Your task to perform on an android device: Open Maps and search for coffee Image 0: 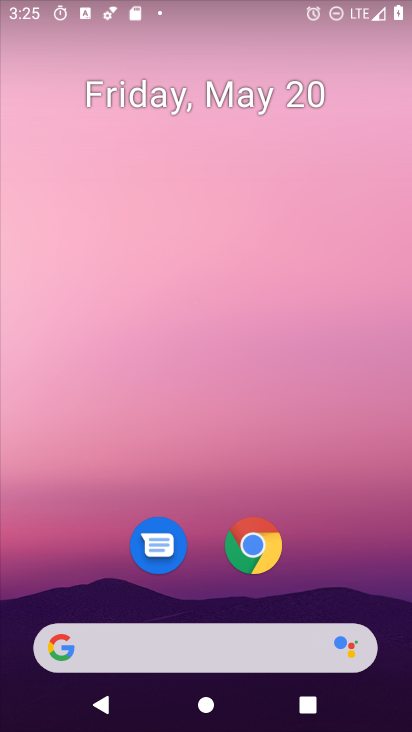
Step 0: drag from (317, 541) to (314, 56)
Your task to perform on an android device: Open Maps and search for coffee Image 1: 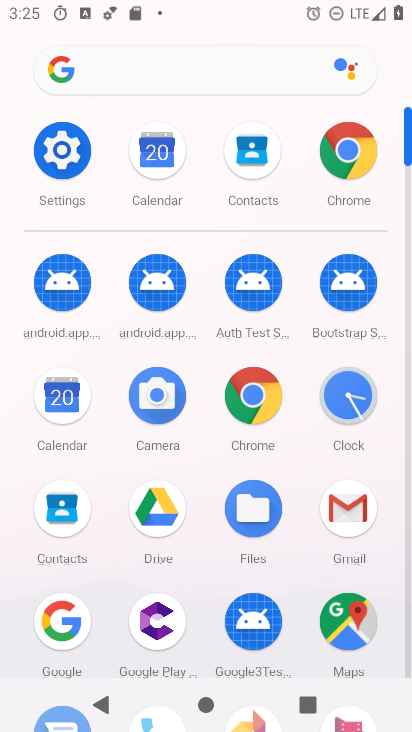
Step 1: click (327, 613)
Your task to perform on an android device: Open Maps and search for coffee Image 2: 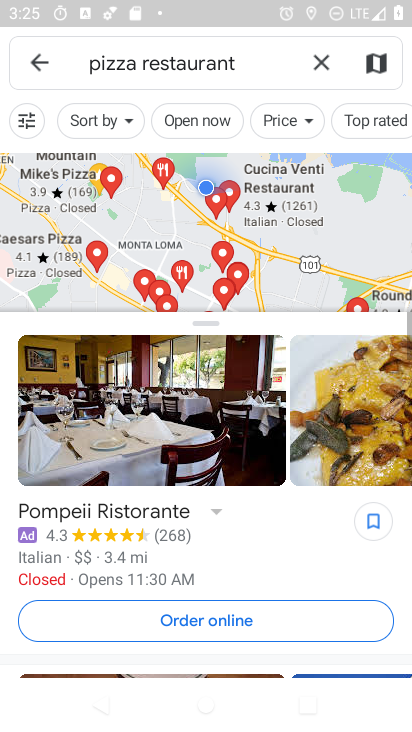
Step 2: press back button
Your task to perform on an android device: Open Maps and search for coffee Image 3: 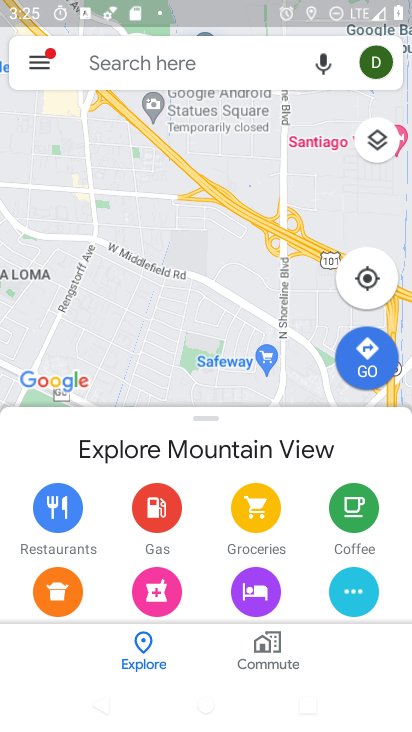
Step 3: click (244, 70)
Your task to perform on an android device: Open Maps and search for coffee Image 4: 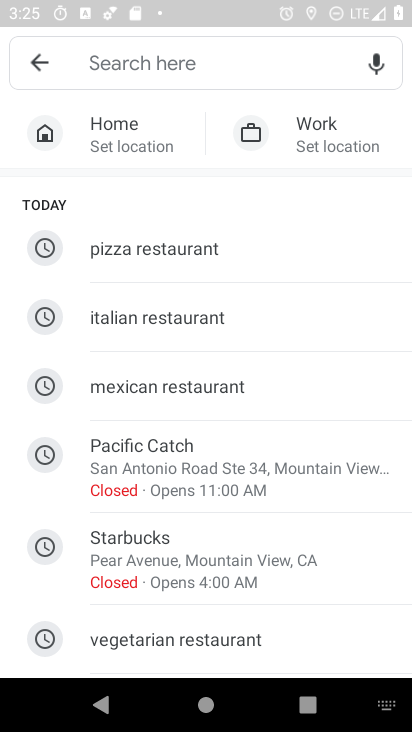
Step 4: type "coffee"
Your task to perform on an android device: Open Maps and search for coffee Image 5: 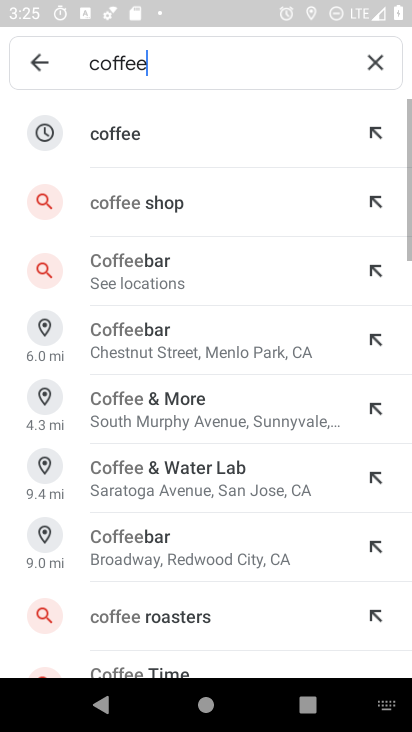
Step 5: click (213, 146)
Your task to perform on an android device: Open Maps and search for coffee Image 6: 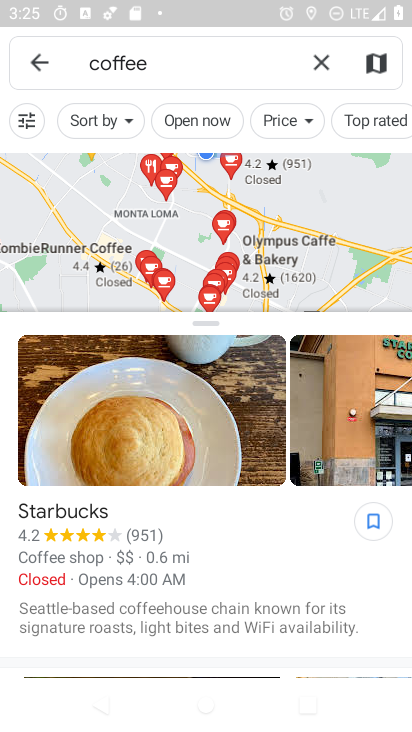
Step 6: task complete